Your task to perform on an android device: turn off priority inbox in the gmail app Image 0: 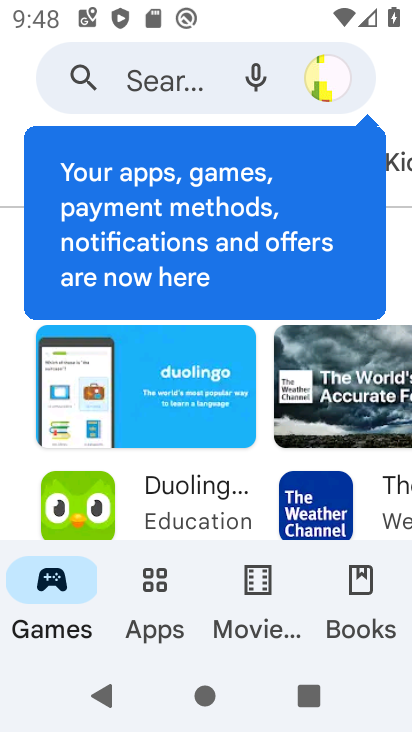
Step 0: press home button
Your task to perform on an android device: turn off priority inbox in the gmail app Image 1: 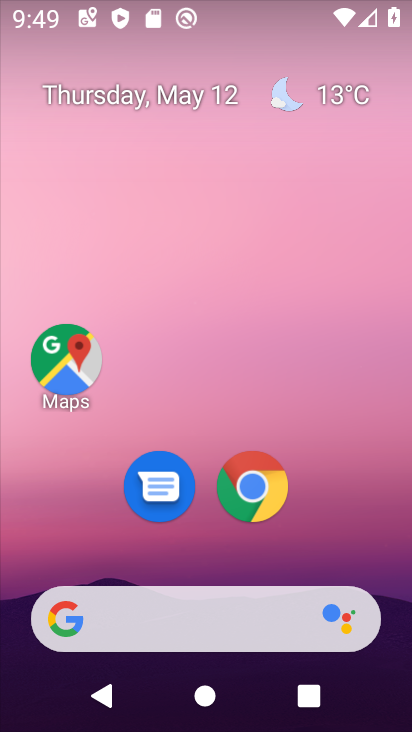
Step 1: drag from (375, 522) to (275, 35)
Your task to perform on an android device: turn off priority inbox in the gmail app Image 2: 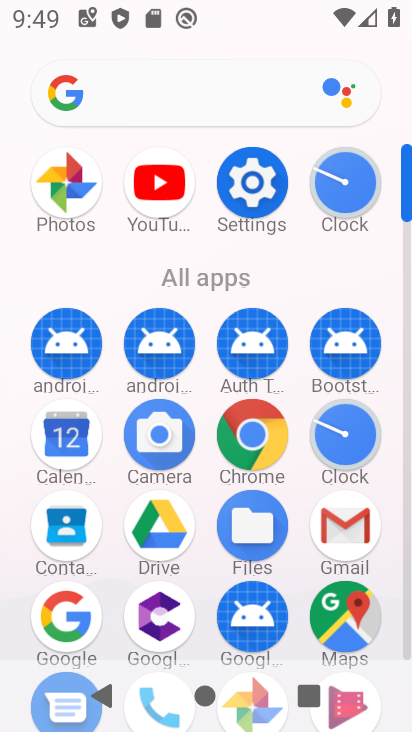
Step 2: click (360, 515)
Your task to perform on an android device: turn off priority inbox in the gmail app Image 3: 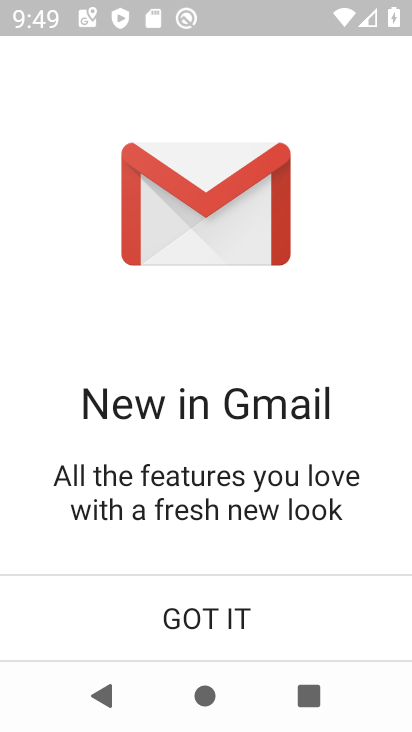
Step 3: click (271, 608)
Your task to perform on an android device: turn off priority inbox in the gmail app Image 4: 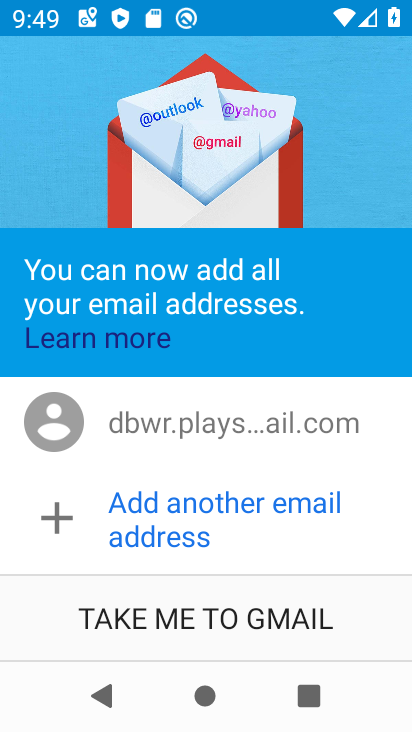
Step 4: click (265, 629)
Your task to perform on an android device: turn off priority inbox in the gmail app Image 5: 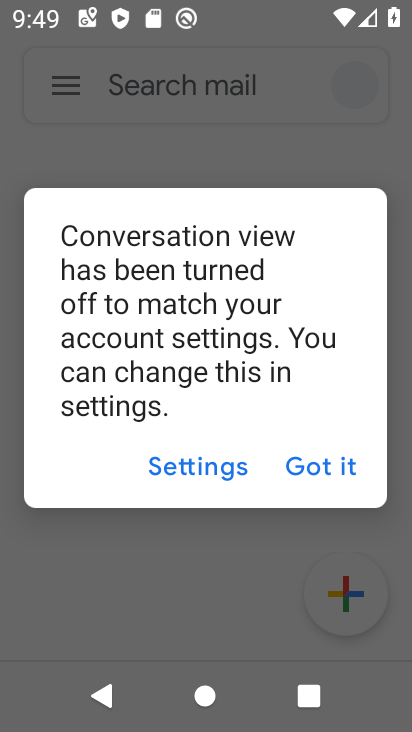
Step 5: click (349, 481)
Your task to perform on an android device: turn off priority inbox in the gmail app Image 6: 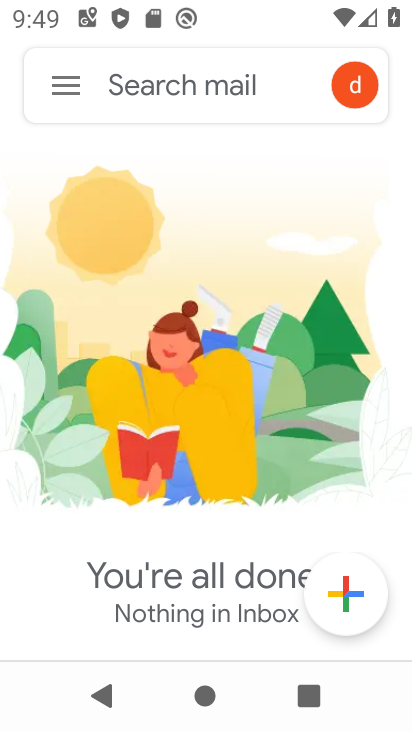
Step 6: click (78, 106)
Your task to perform on an android device: turn off priority inbox in the gmail app Image 7: 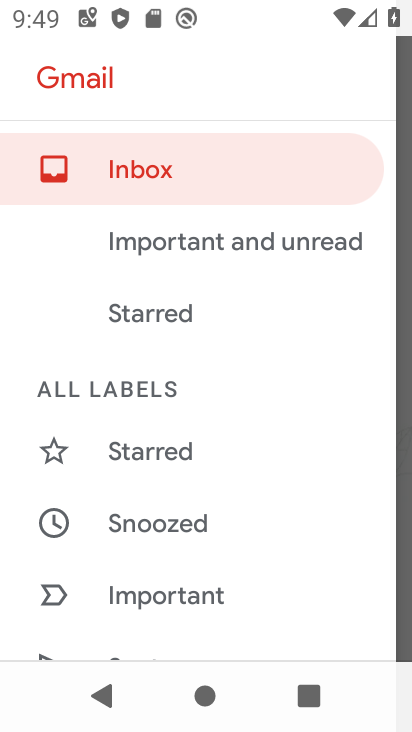
Step 7: drag from (233, 525) to (160, 107)
Your task to perform on an android device: turn off priority inbox in the gmail app Image 8: 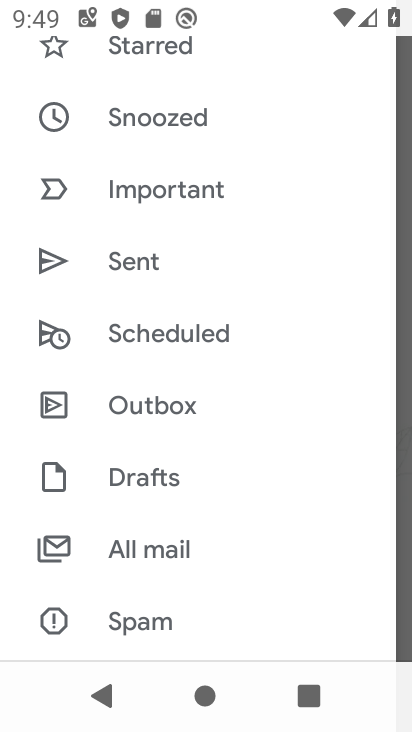
Step 8: drag from (219, 573) to (101, 176)
Your task to perform on an android device: turn off priority inbox in the gmail app Image 9: 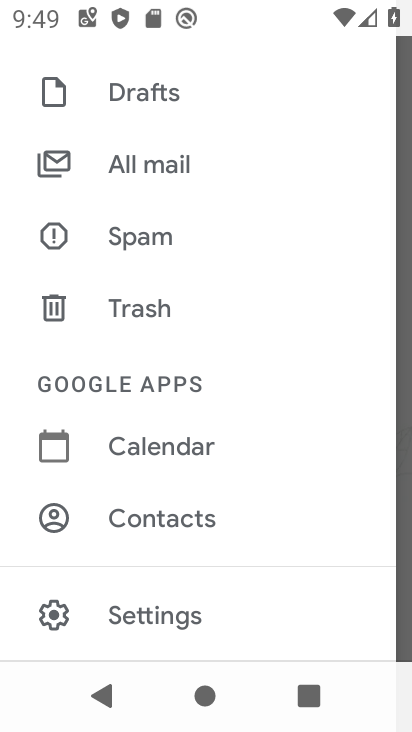
Step 9: click (176, 603)
Your task to perform on an android device: turn off priority inbox in the gmail app Image 10: 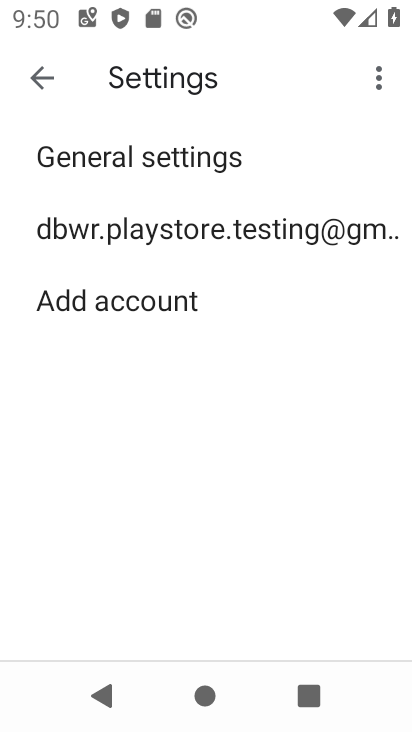
Step 10: click (153, 230)
Your task to perform on an android device: turn off priority inbox in the gmail app Image 11: 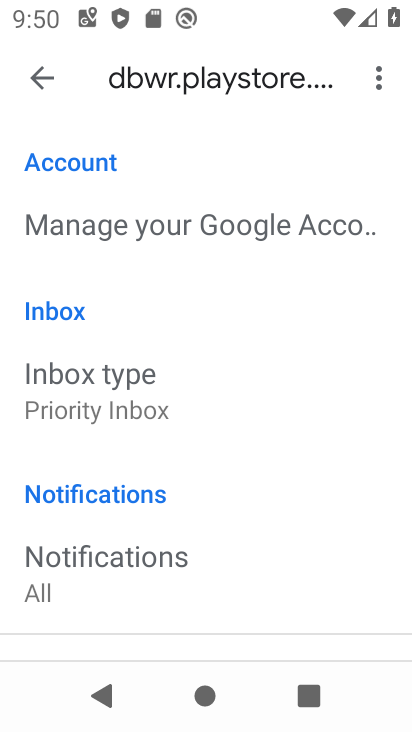
Step 11: drag from (249, 562) to (189, 398)
Your task to perform on an android device: turn off priority inbox in the gmail app Image 12: 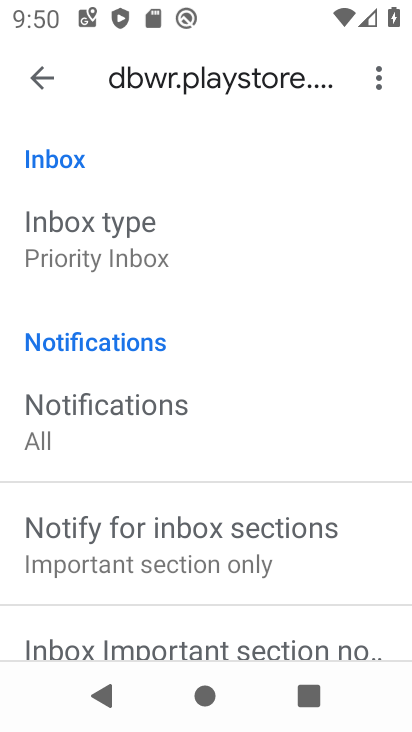
Step 12: click (153, 285)
Your task to perform on an android device: turn off priority inbox in the gmail app Image 13: 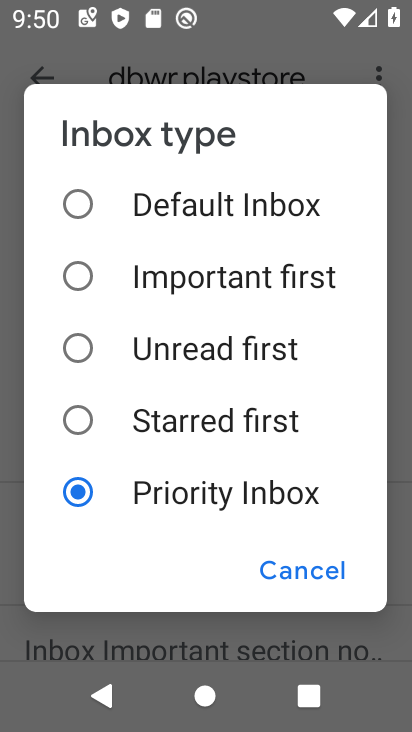
Step 13: click (123, 214)
Your task to perform on an android device: turn off priority inbox in the gmail app Image 14: 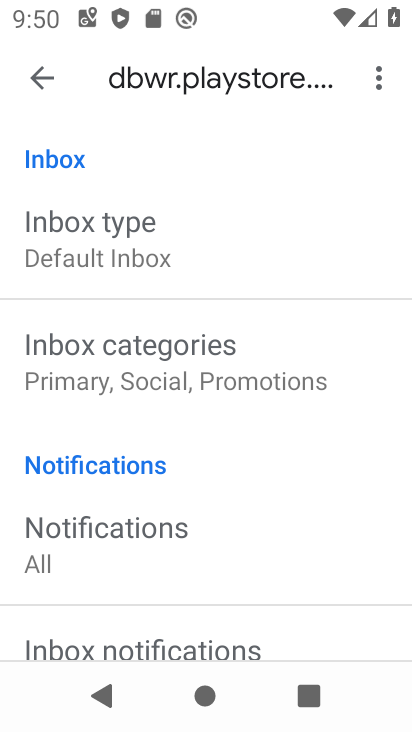
Step 14: task complete